Your task to perform on an android device: check data usage Image 0: 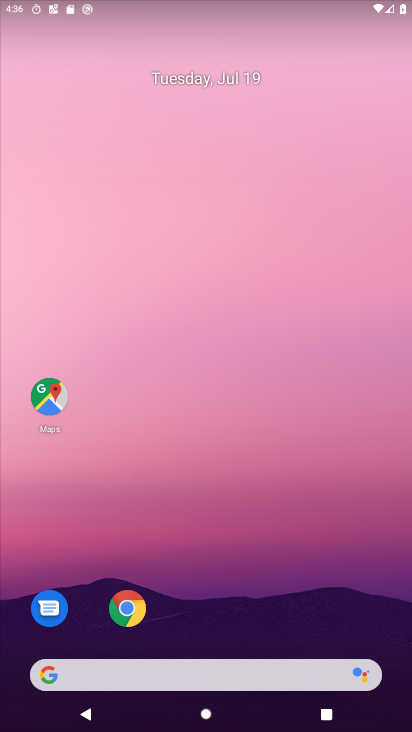
Step 0: drag from (201, 679) to (225, 189)
Your task to perform on an android device: check data usage Image 1: 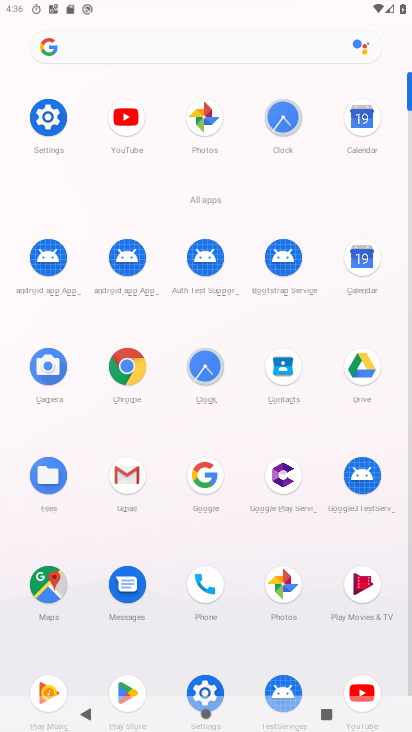
Step 1: click (48, 117)
Your task to perform on an android device: check data usage Image 2: 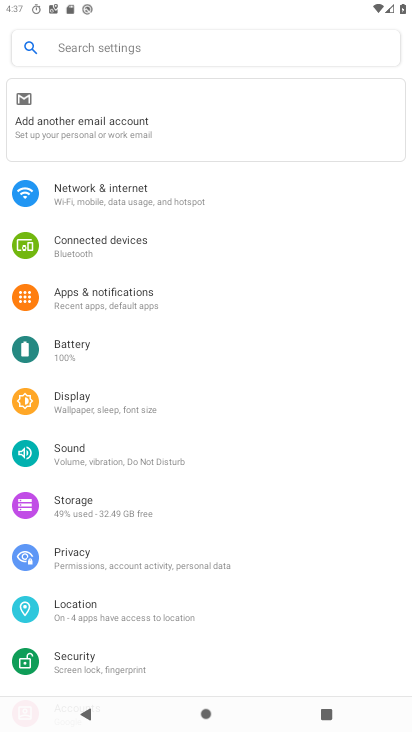
Step 2: click (95, 199)
Your task to perform on an android device: check data usage Image 3: 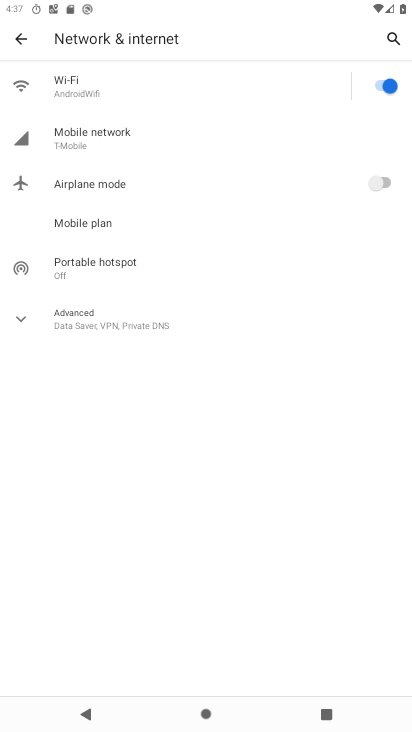
Step 3: click (92, 140)
Your task to perform on an android device: check data usage Image 4: 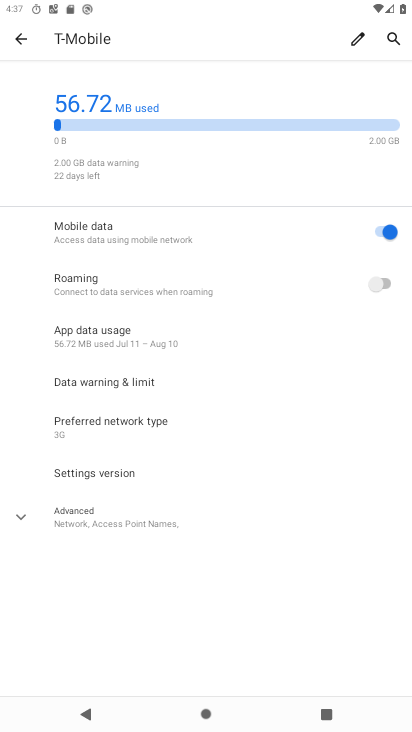
Step 4: task complete